Your task to perform on an android device: open app "Google Translate" (install if not already installed) Image 0: 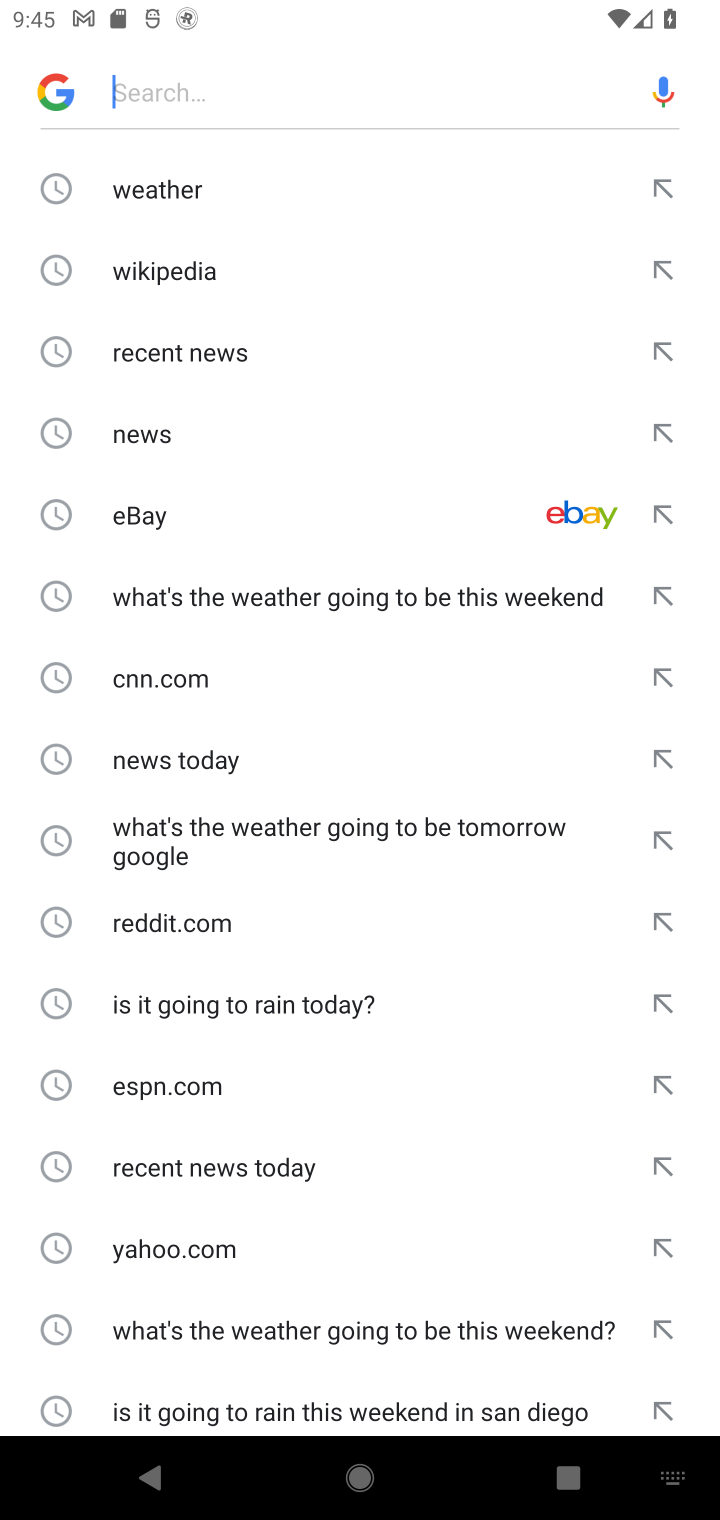
Step 0: press home button
Your task to perform on an android device: open app "Google Translate" (install if not already installed) Image 1: 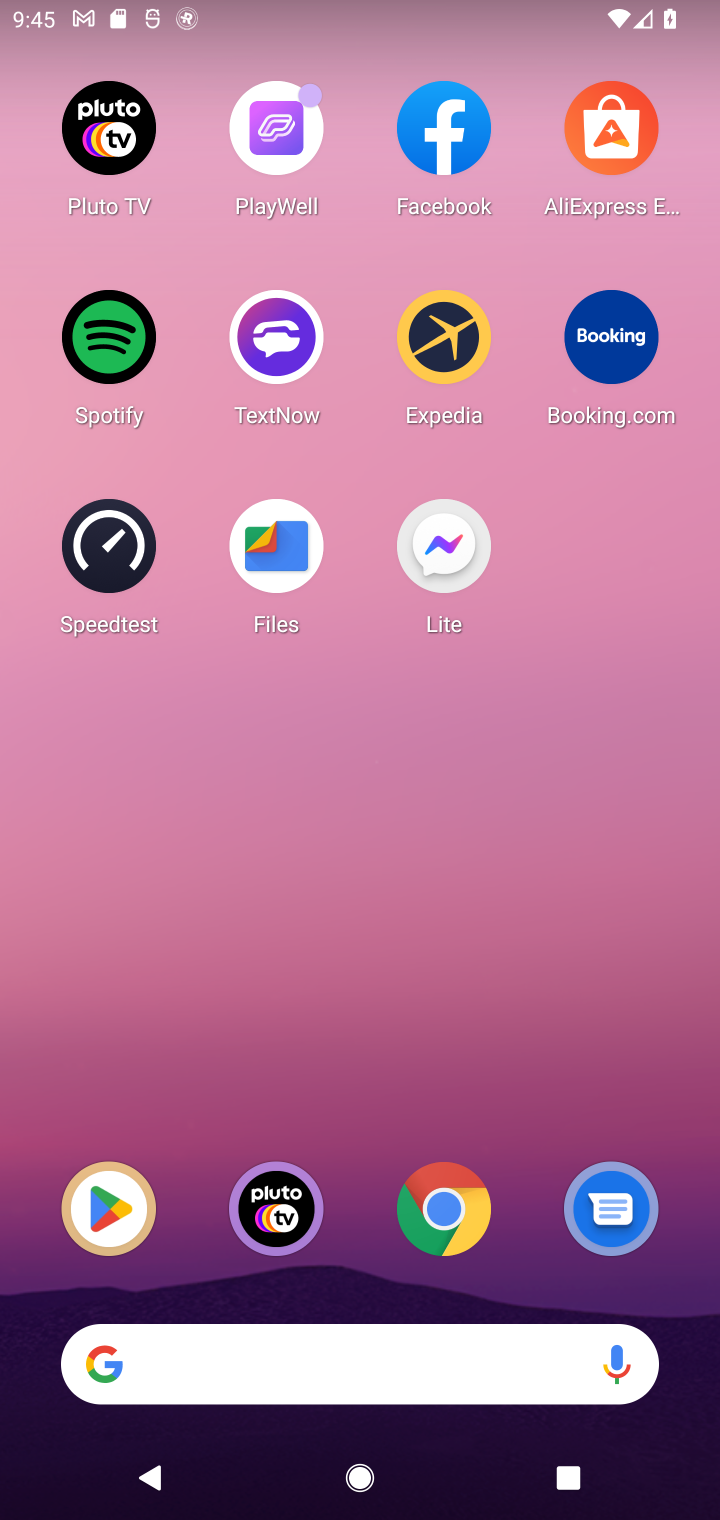
Step 1: drag from (296, 1359) to (465, 181)
Your task to perform on an android device: open app "Google Translate" (install if not already installed) Image 2: 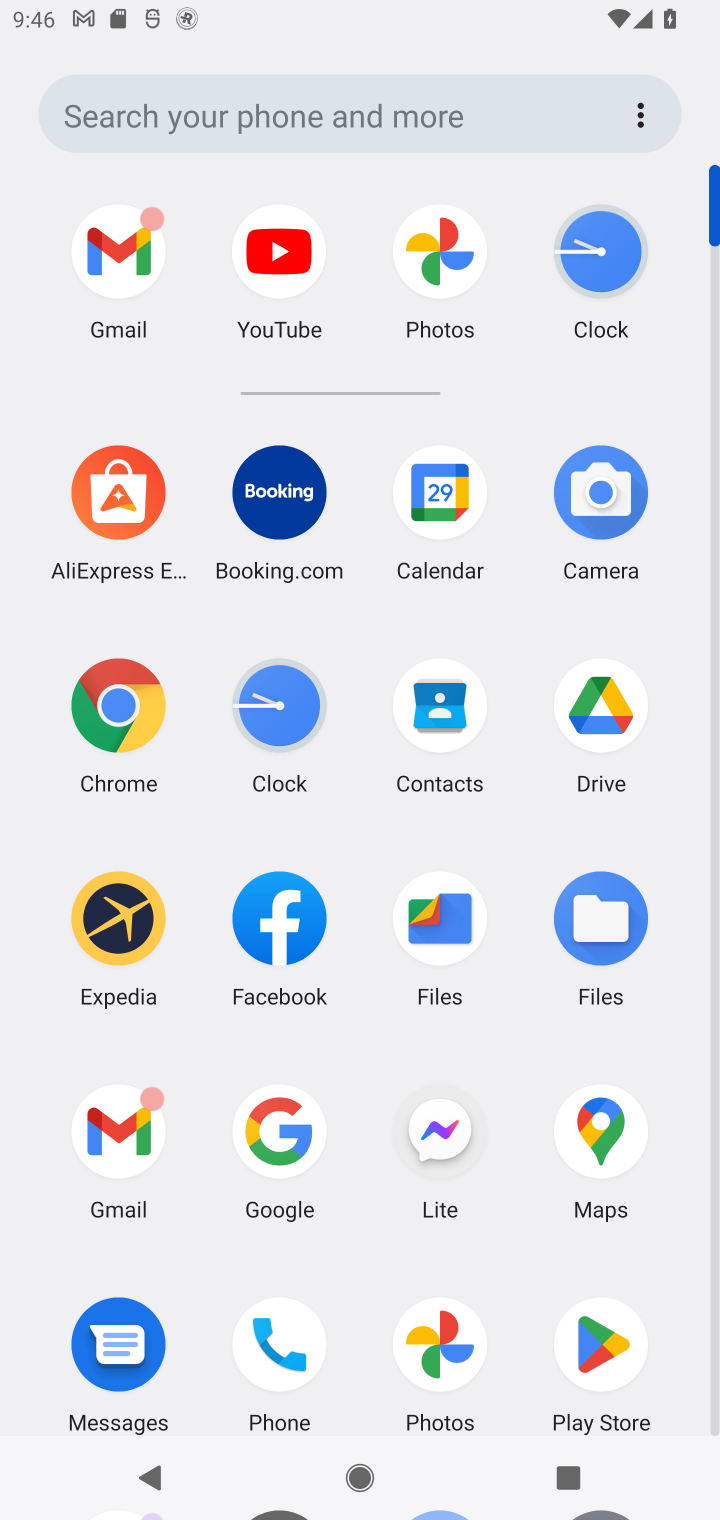
Step 2: click (602, 1347)
Your task to perform on an android device: open app "Google Translate" (install if not already installed) Image 3: 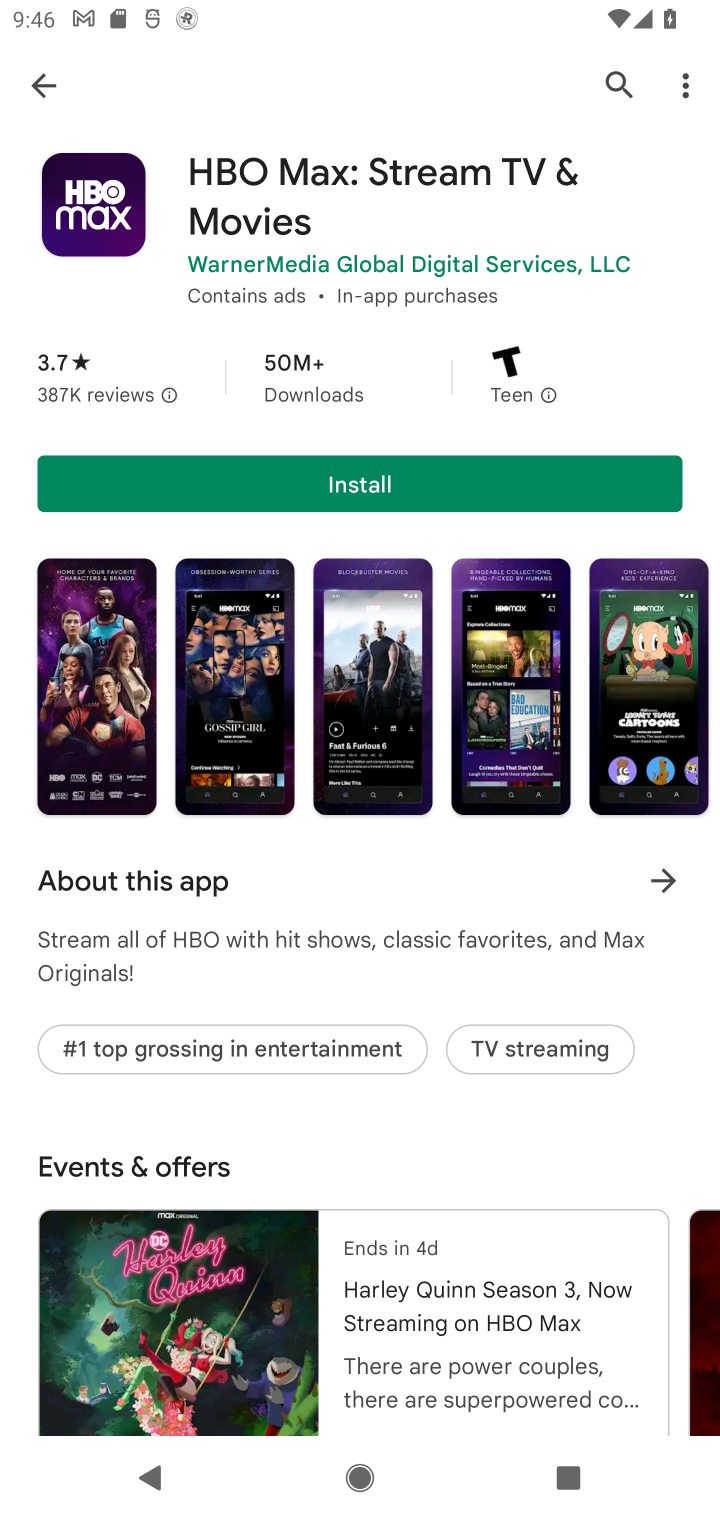
Step 3: click (622, 85)
Your task to perform on an android device: open app "Google Translate" (install if not already installed) Image 4: 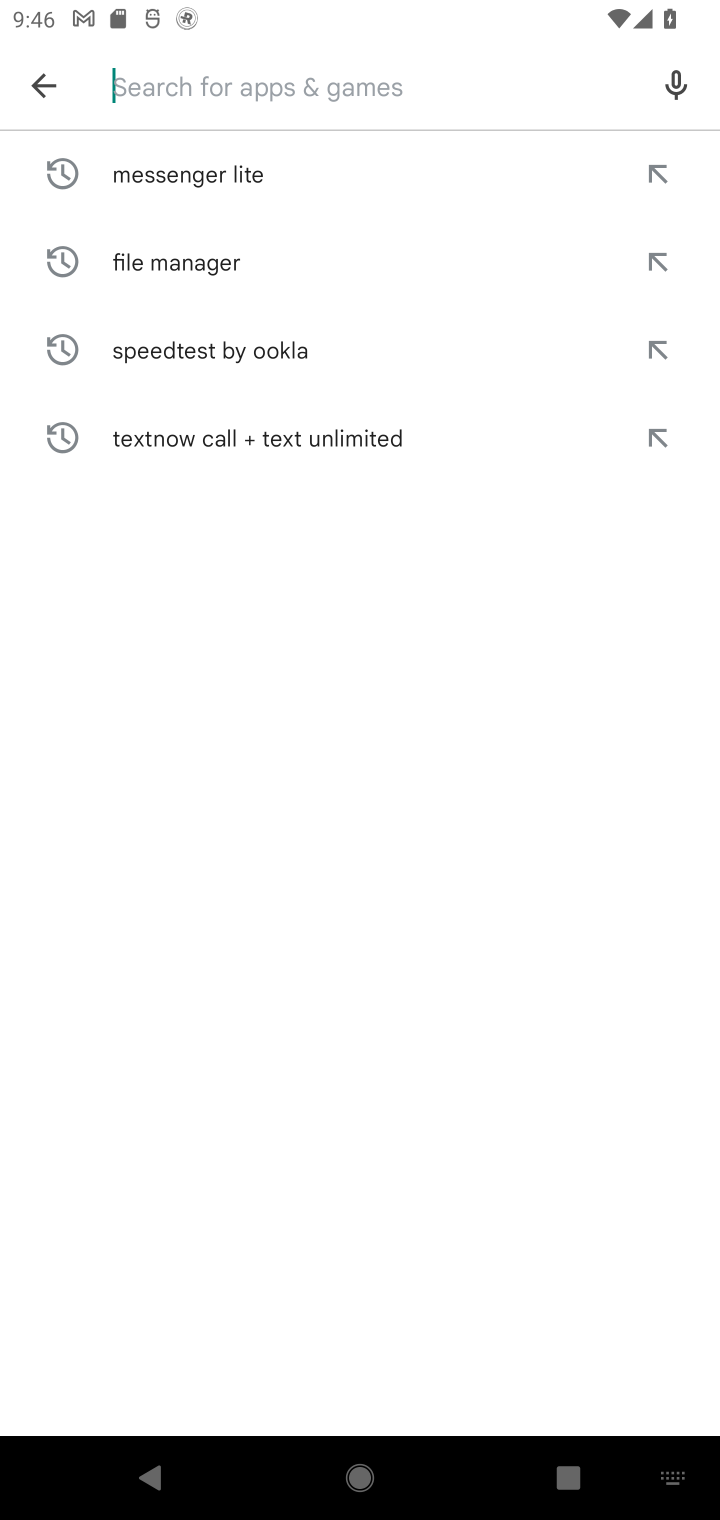
Step 4: click (309, 83)
Your task to perform on an android device: open app "Google Translate" (install if not already installed) Image 5: 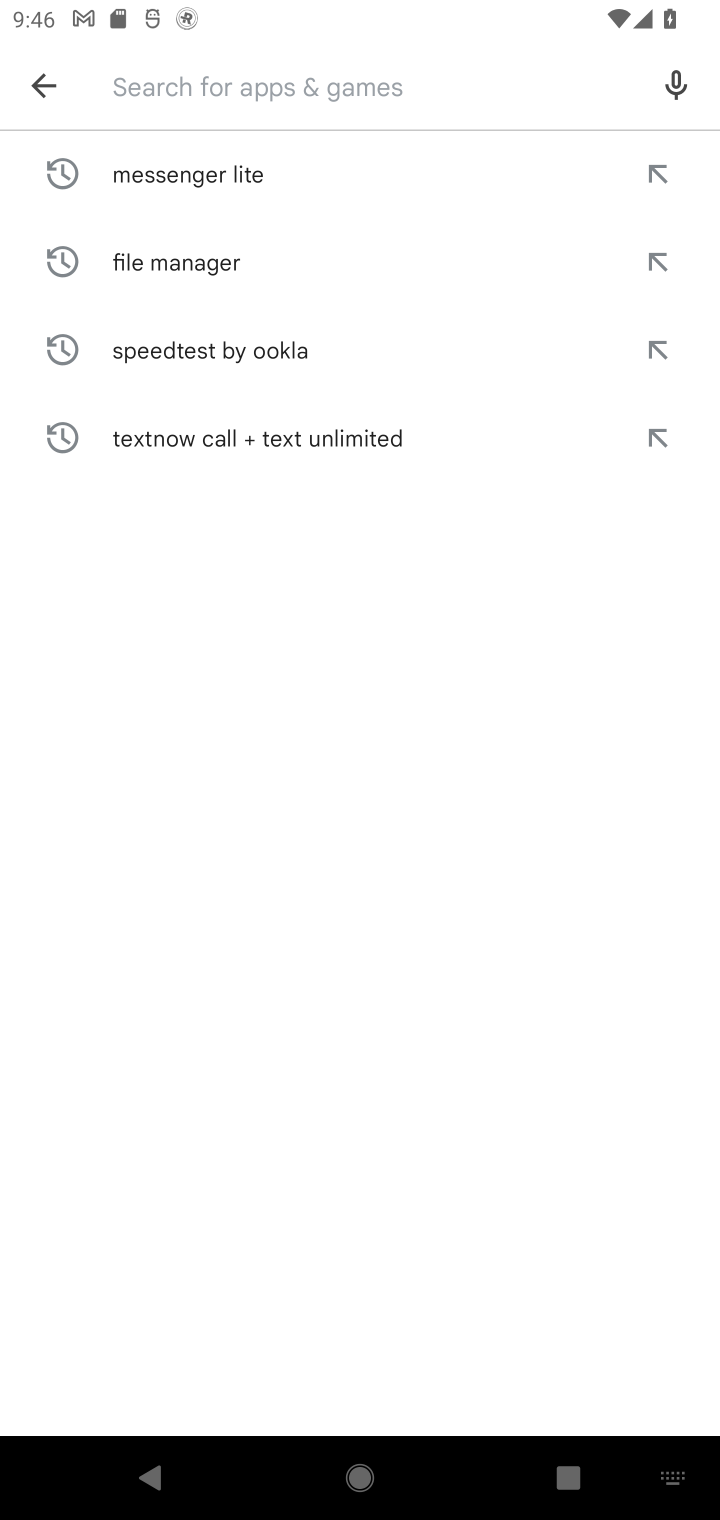
Step 5: type "Google Translate"
Your task to perform on an android device: open app "Google Translate" (install if not already installed) Image 6: 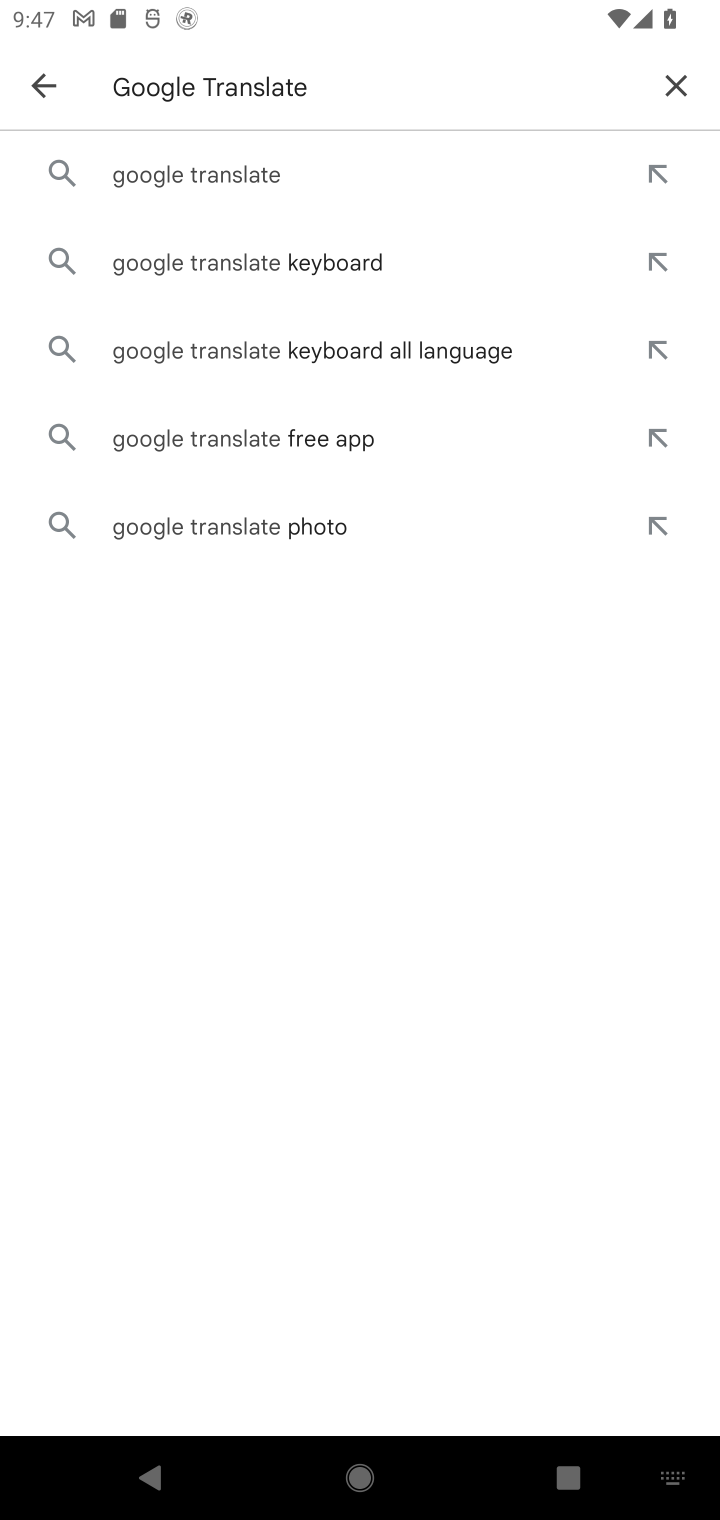
Step 6: click (262, 170)
Your task to perform on an android device: open app "Google Translate" (install if not already installed) Image 7: 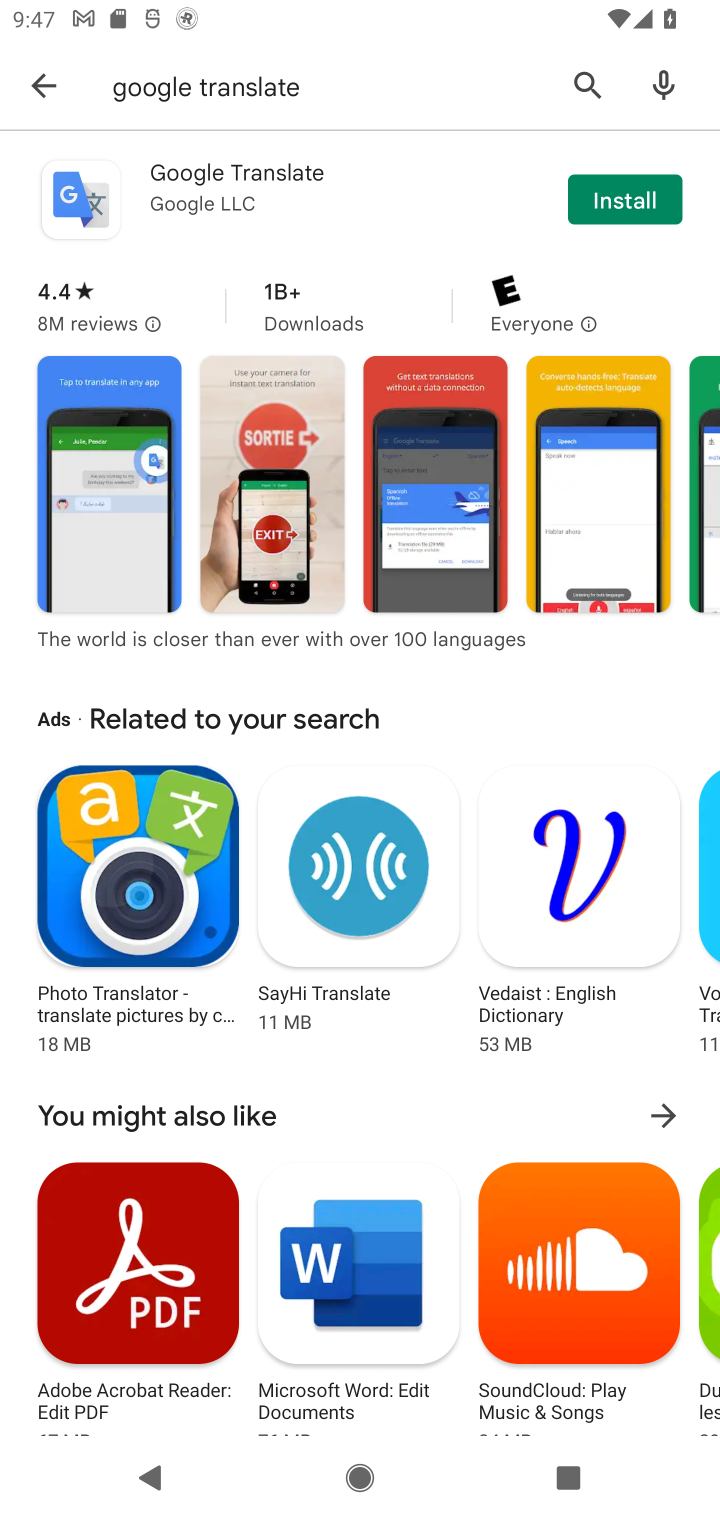
Step 7: click (634, 205)
Your task to perform on an android device: open app "Google Translate" (install if not already installed) Image 8: 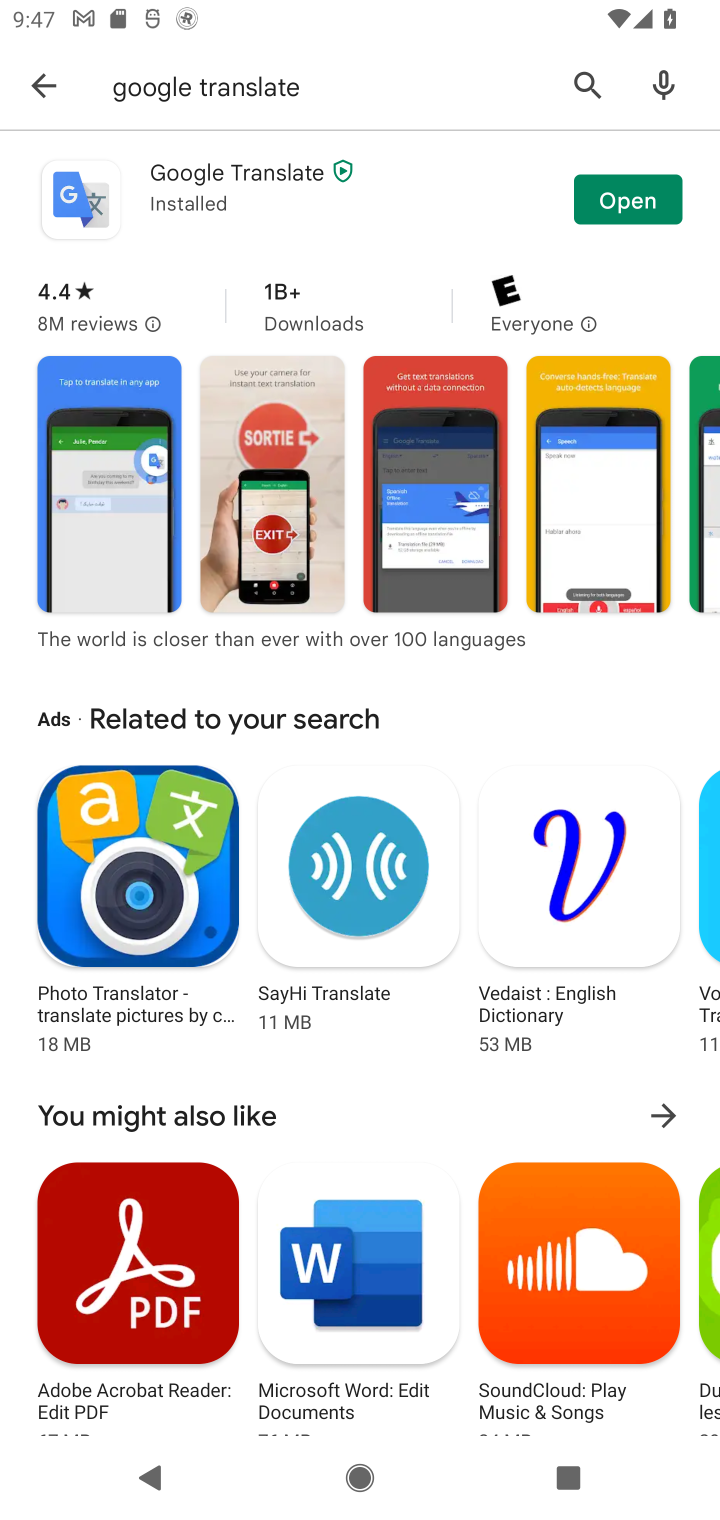
Step 8: click (628, 192)
Your task to perform on an android device: open app "Google Translate" (install if not already installed) Image 9: 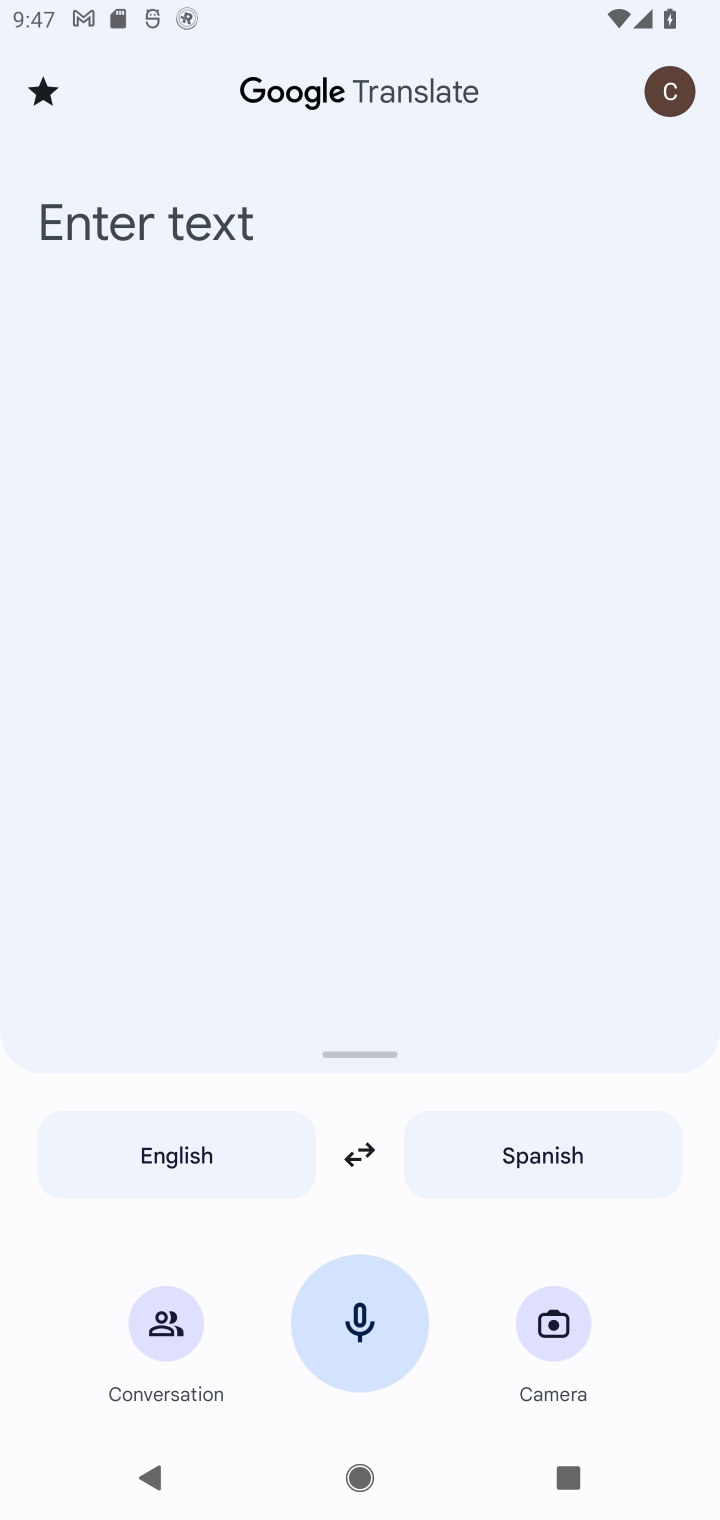
Step 9: task complete